Your task to perform on an android device: change timer sound Image 0: 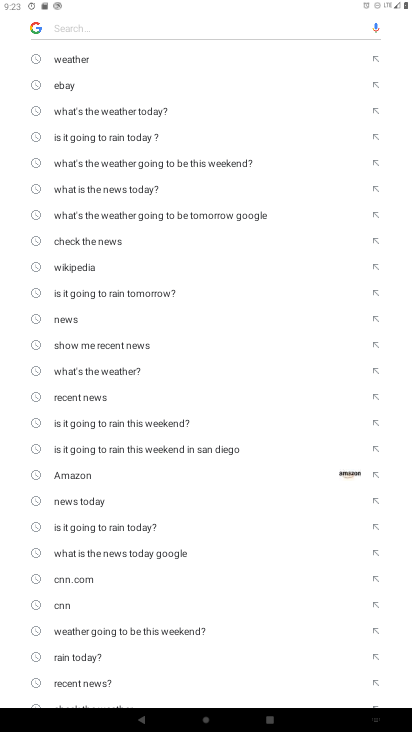
Step 0: press home button
Your task to perform on an android device: change timer sound Image 1: 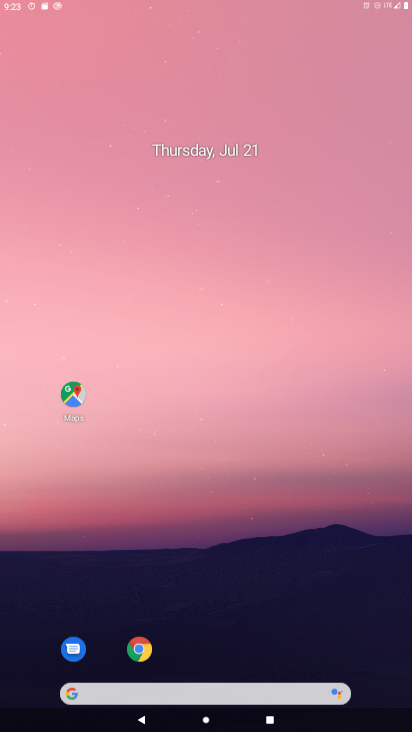
Step 1: drag from (402, 635) to (227, 85)
Your task to perform on an android device: change timer sound Image 2: 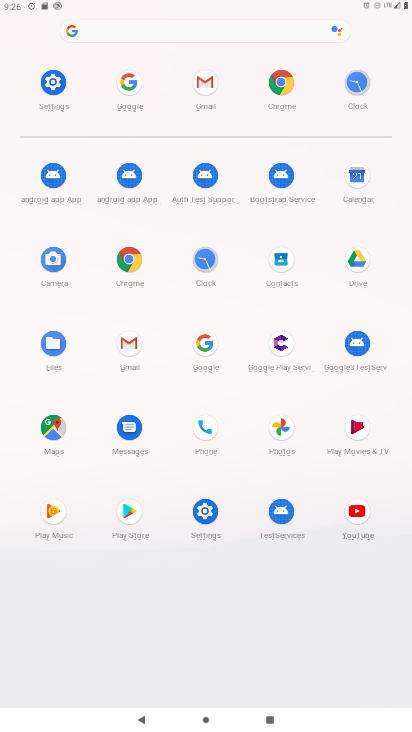
Step 2: click (205, 253)
Your task to perform on an android device: change timer sound Image 3: 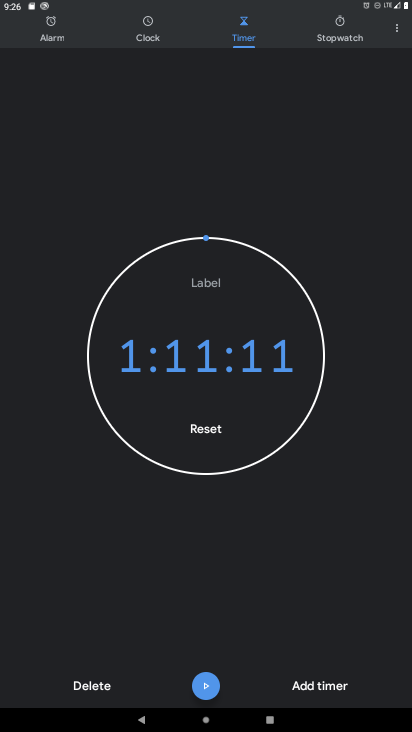
Step 3: click (400, 27)
Your task to perform on an android device: change timer sound Image 4: 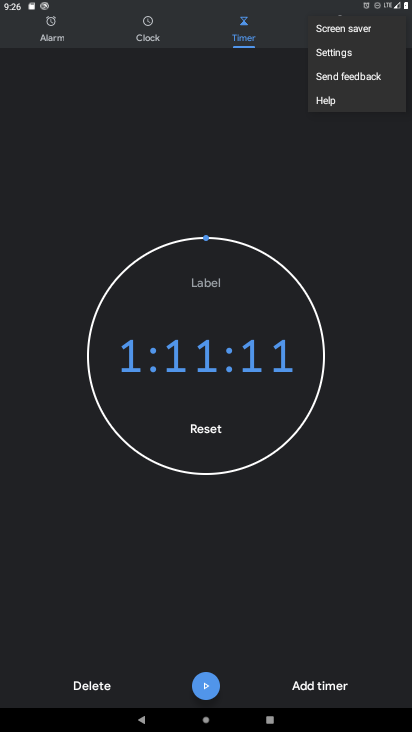
Step 4: click (360, 52)
Your task to perform on an android device: change timer sound Image 5: 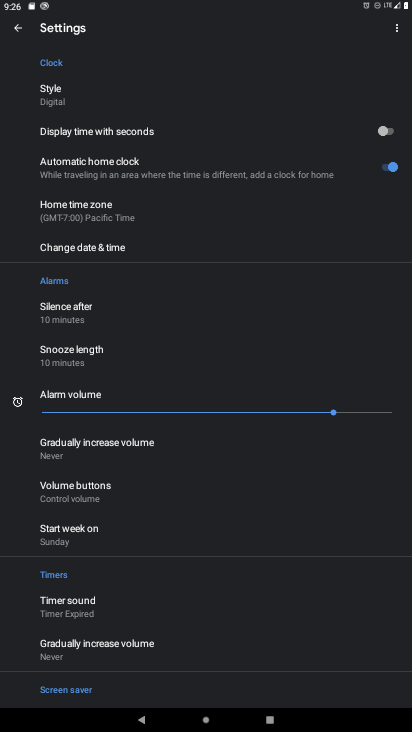
Step 5: click (98, 604)
Your task to perform on an android device: change timer sound Image 6: 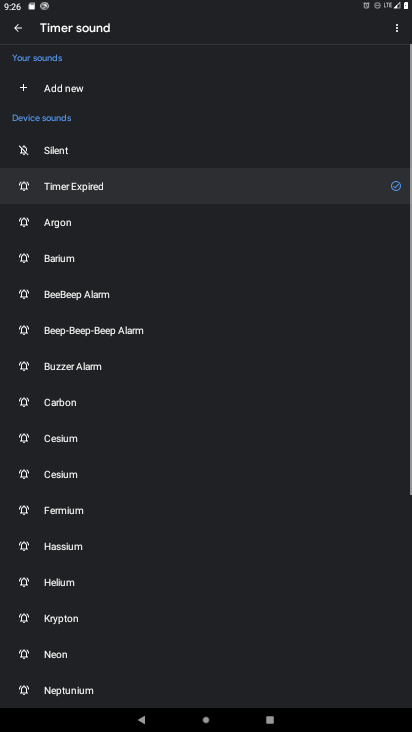
Step 6: click (75, 385)
Your task to perform on an android device: change timer sound Image 7: 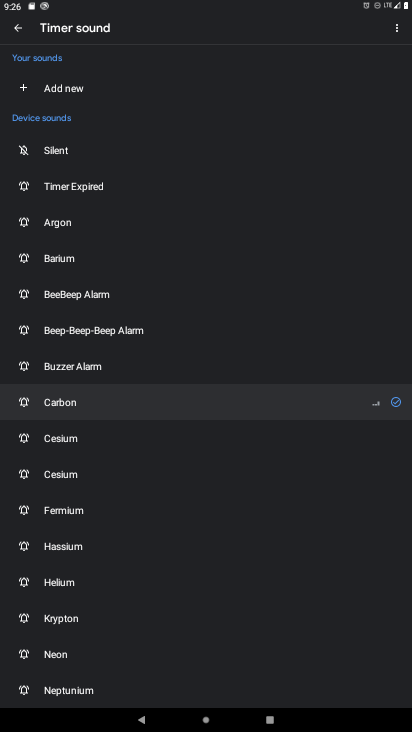
Step 7: task complete